Your task to perform on an android device: toggle data saver in the chrome app Image 0: 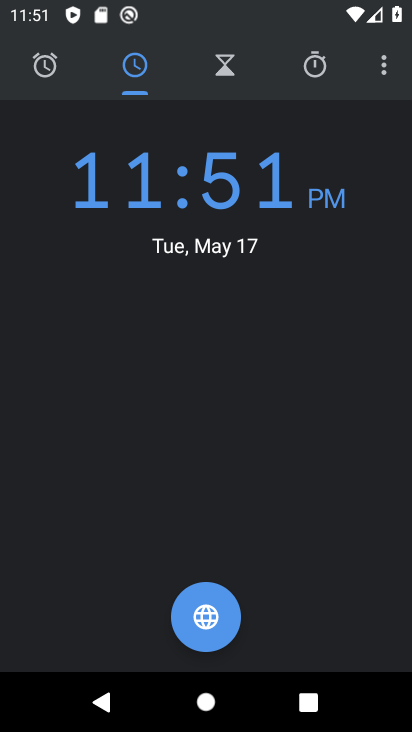
Step 0: press home button
Your task to perform on an android device: toggle data saver in the chrome app Image 1: 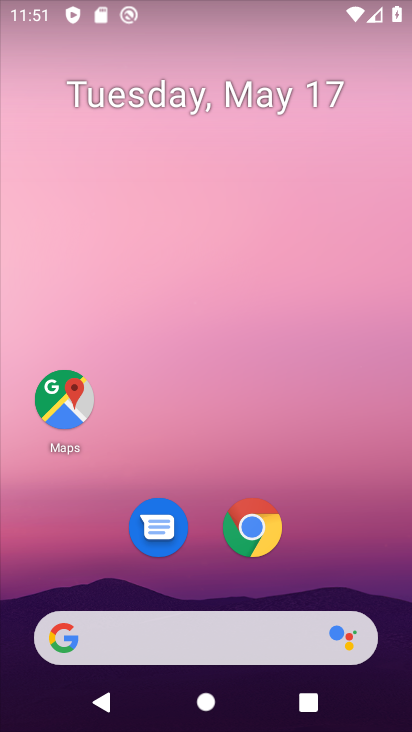
Step 1: drag from (187, 564) to (205, 81)
Your task to perform on an android device: toggle data saver in the chrome app Image 2: 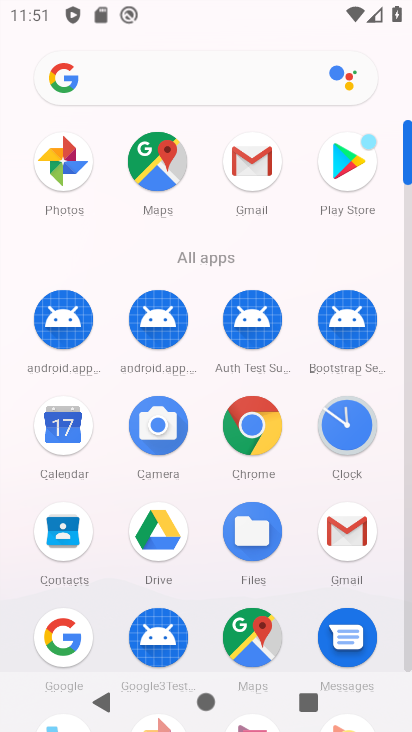
Step 2: click (246, 418)
Your task to perform on an android device: toggle data saver in the chrome app Image 3: 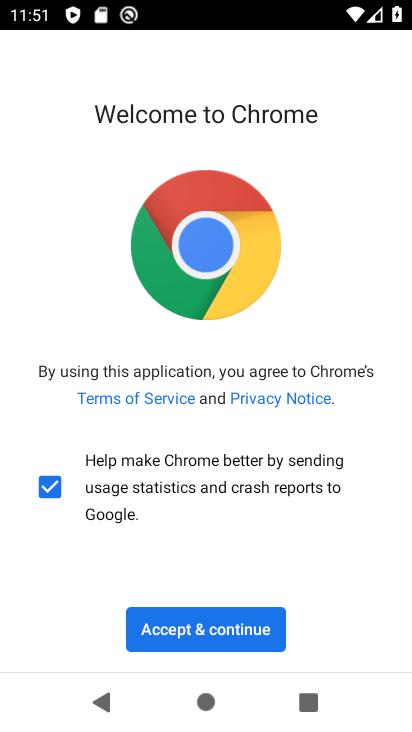
Step 3: click (236, 629)
Your task to perform on an android device: toggle data saver in the chrome app Image 4: 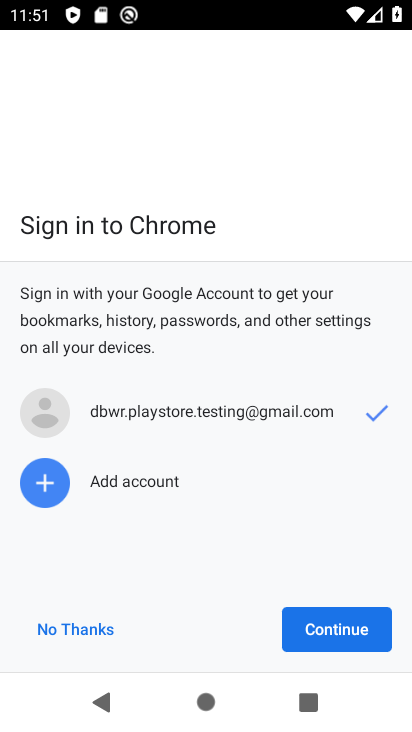
Step 4: click (353, 633)
Your task to perform on an android device: toggle data saver in the chrome app Image 5: 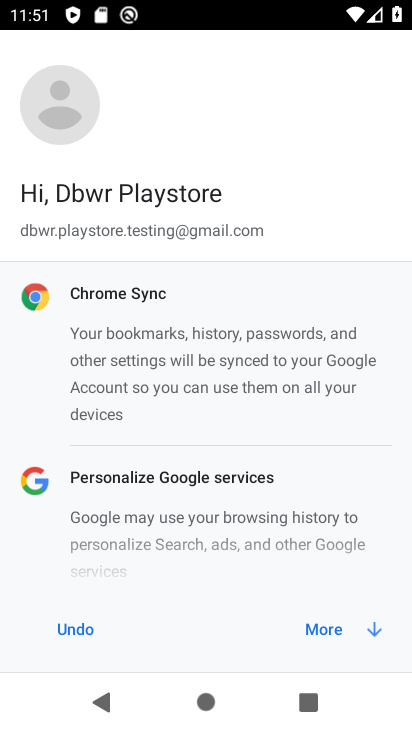
Step 5: click (331, 632)
Your task to perform on an android device: toggle data saver in the chrome app Image 6: 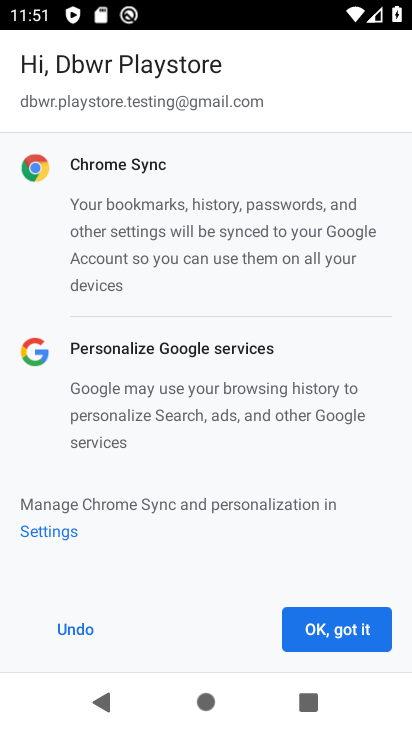
Step 6: click (331, 632)
Your task to perform on an android device: toggle data saver in the chrome app Image 7: 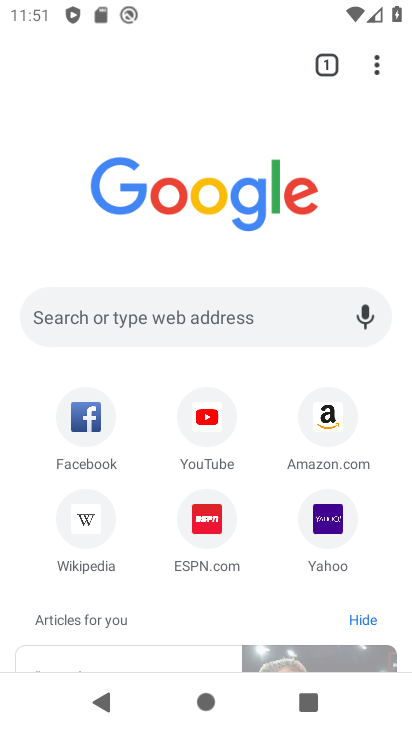
Step 7: click (370, 66)
Your task to perform on an android device: toggle data saver in the chrome app Image 8: 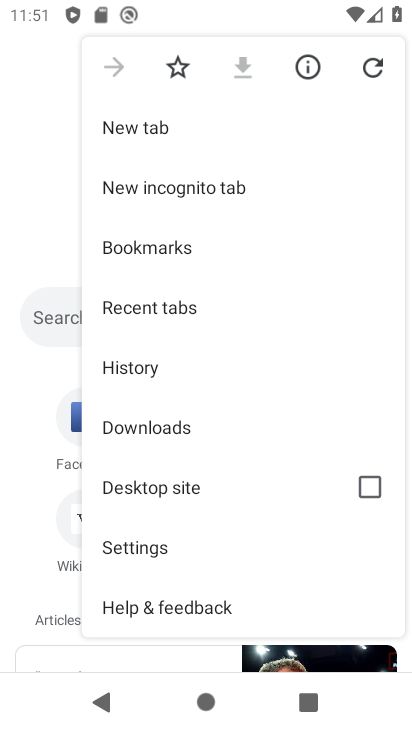
Step 8: click (140, 557)
Your task to perform on an android device: toggle data saver in the chrome app Image 9: 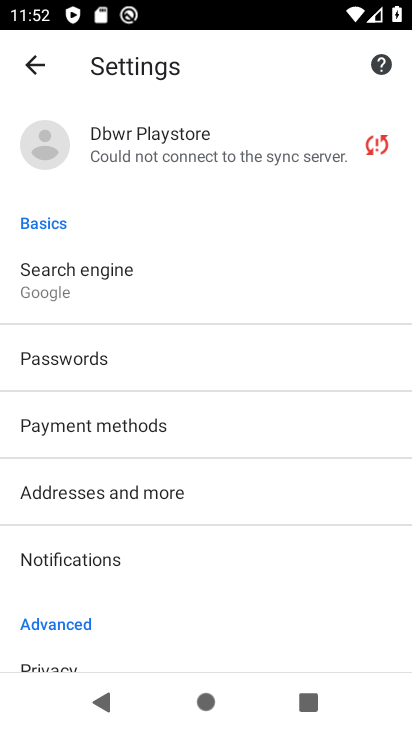
Step 9: drag from (103, 564) to (158, 257)
Your task to perform on an android device: toggle data saver in the chrome app Image 10: 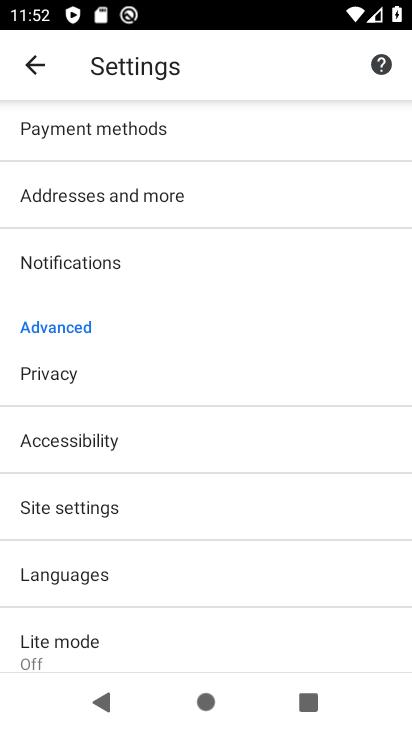
Step 10: click (87, 630)
Your task to perform on an android device: toggle data saver in the chrome app Image 11: 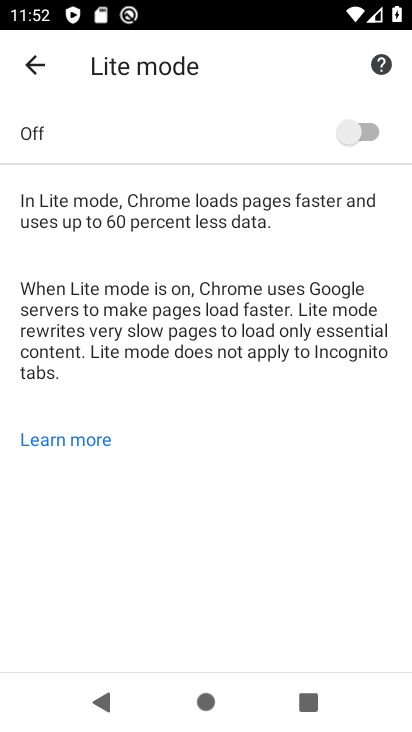
Step 11: click (350, 157)
Your task to perform on an android device: toggle data saver in the chrome app Image 12: 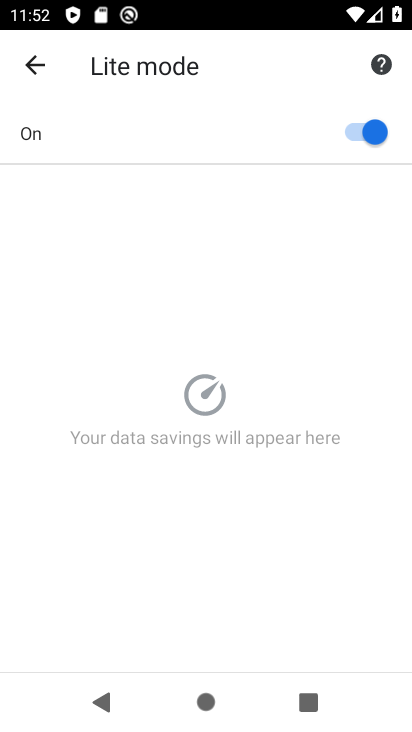
Step 12: task complete